Your task to perform on an android device: turn on notifications settings in the gmail app Image 0: 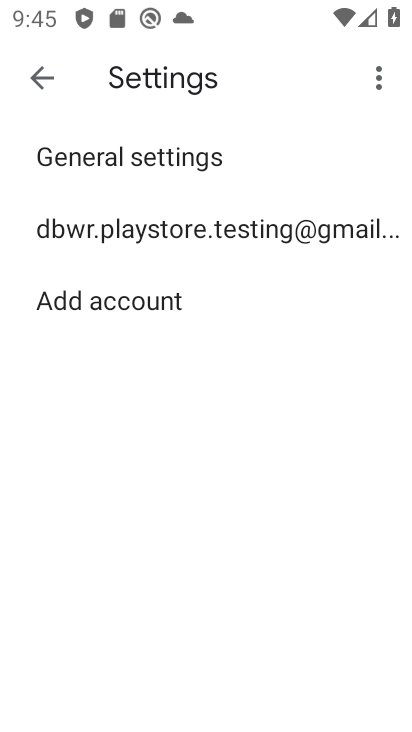
Step 0: press home button
Your task to perform on an android device: turn on notifications settings in the gmail app Image 1: 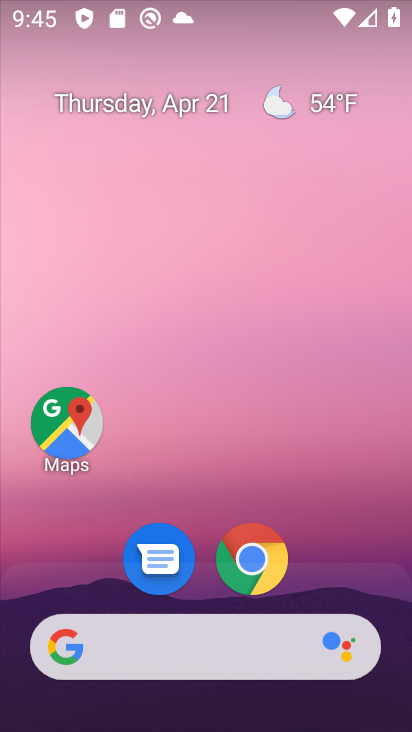
Step 1: drag from (342, 505) to (300, 47)
Your task to perform on an android device: turn on notifications settings in the gmail app Image 2: 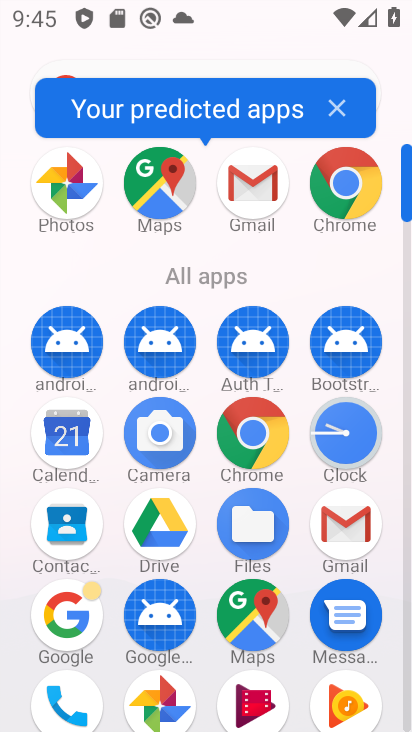
Step 2: click (254, 188)
Your task to perform on an android device: turn on notifications settings in the gmail app Image 3: 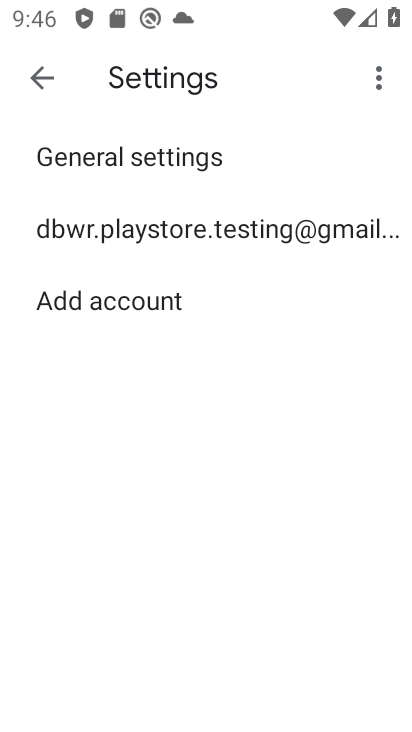
Step 3: click (144, 157)
Your task to perform on an android device: turn on notifications settings in the gmail app Image 4: 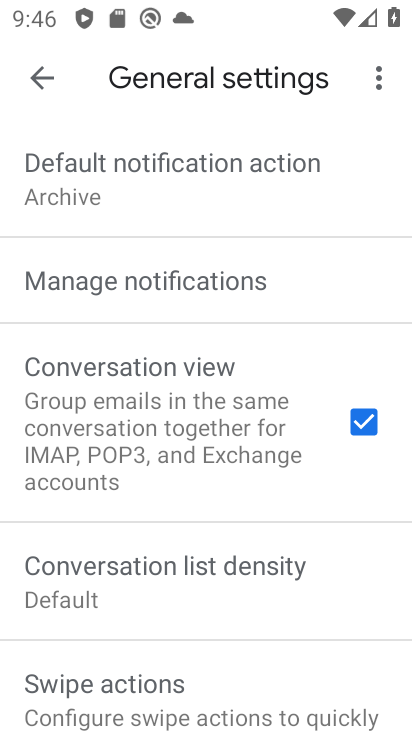
Step 4: click (172, 270)
Your task to perform on an android device: turn on notifications settings in the gmail app Image 5: 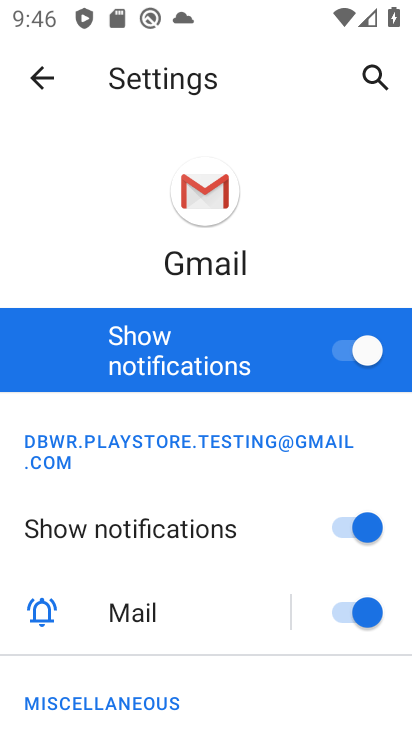
Step 5: task complete